Your task to perform on an android device: turn notification dots off Image 0: 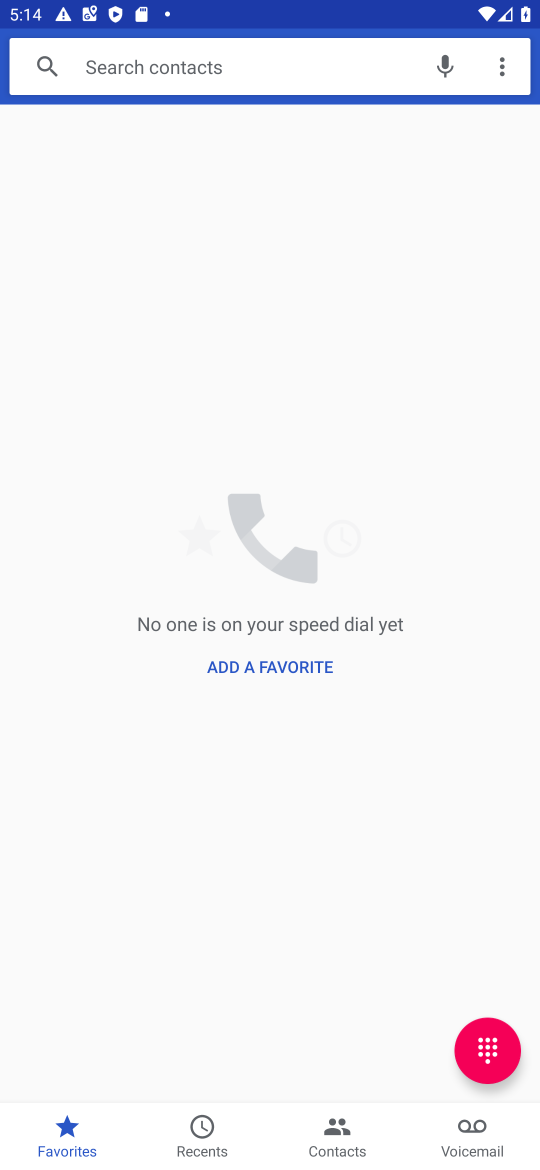
Step 0: press home button
Your task to perform on an android device: turn notification dots off Image 1: 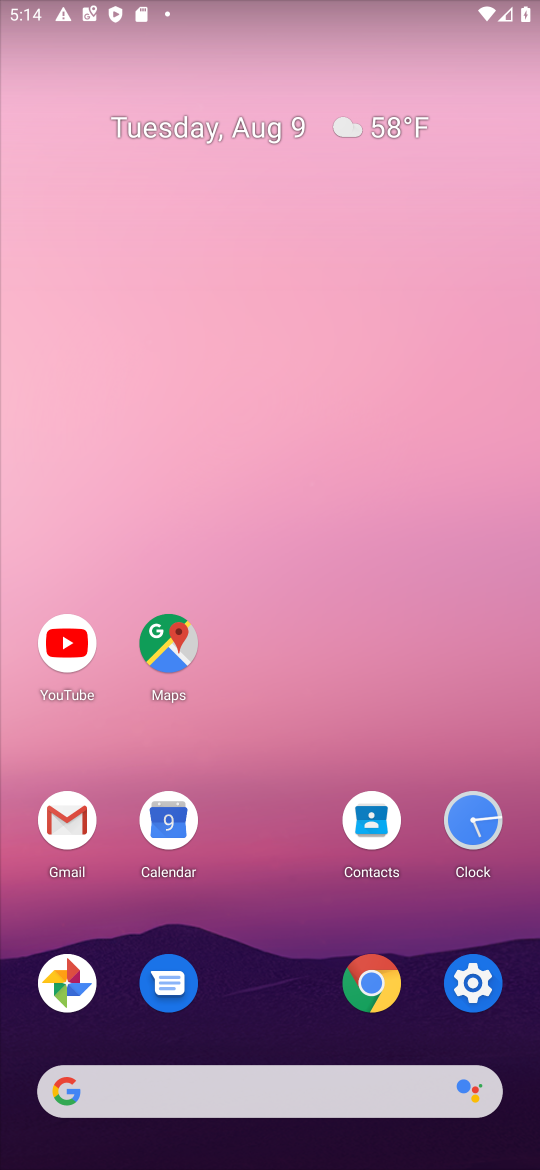
Step 1: click (470, 978)
Your task to perform on an android device: turn notification dots off Image 2: 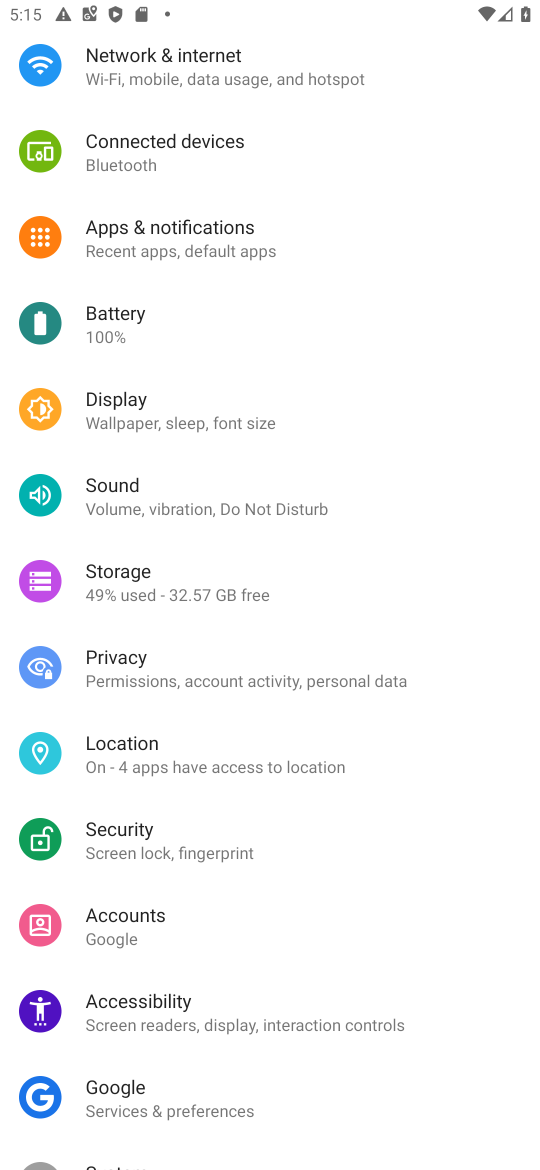
Step 2: click (161, 224)
Your task to perform on an android device: turn notification dots off Image 3: 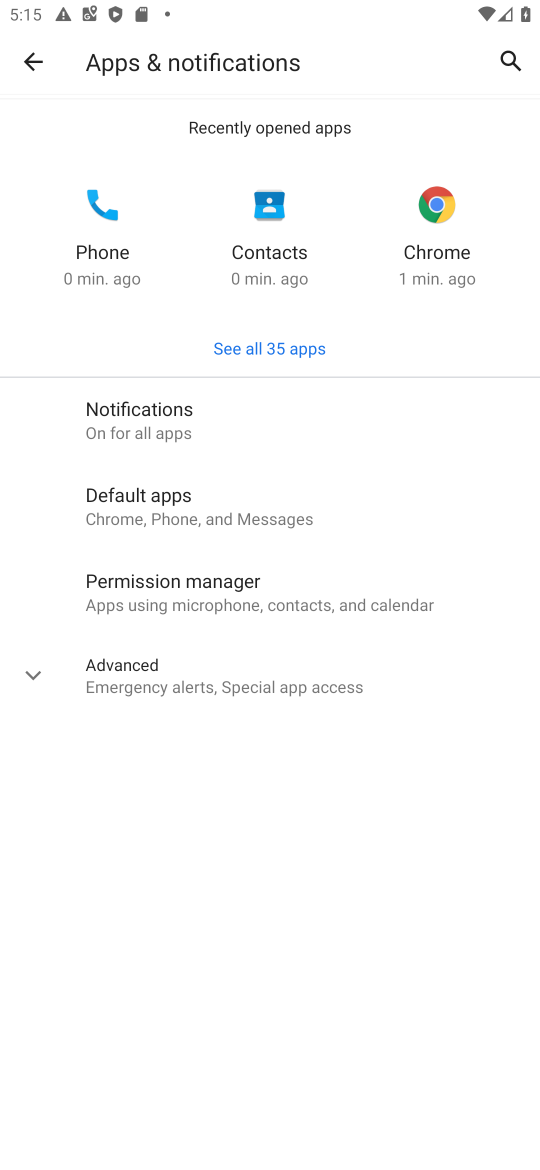
Step 3: click (166, 402)
Your task to perform on an android device: turn notification dots off Image 4: 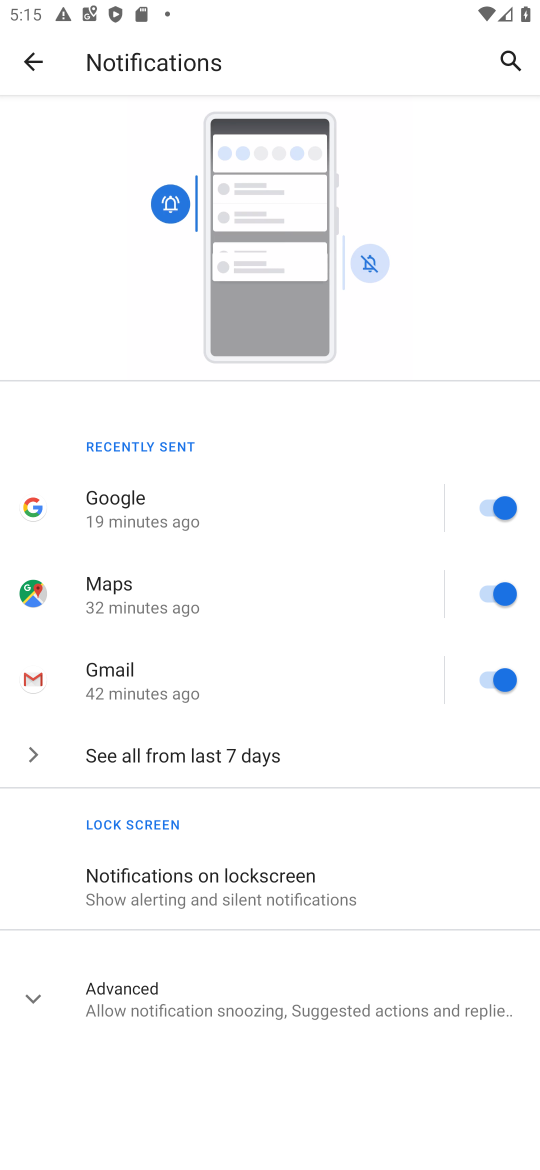
Step 4: click (42, 996)
Your task to perform on an android device: turn notification dots off Image 5: 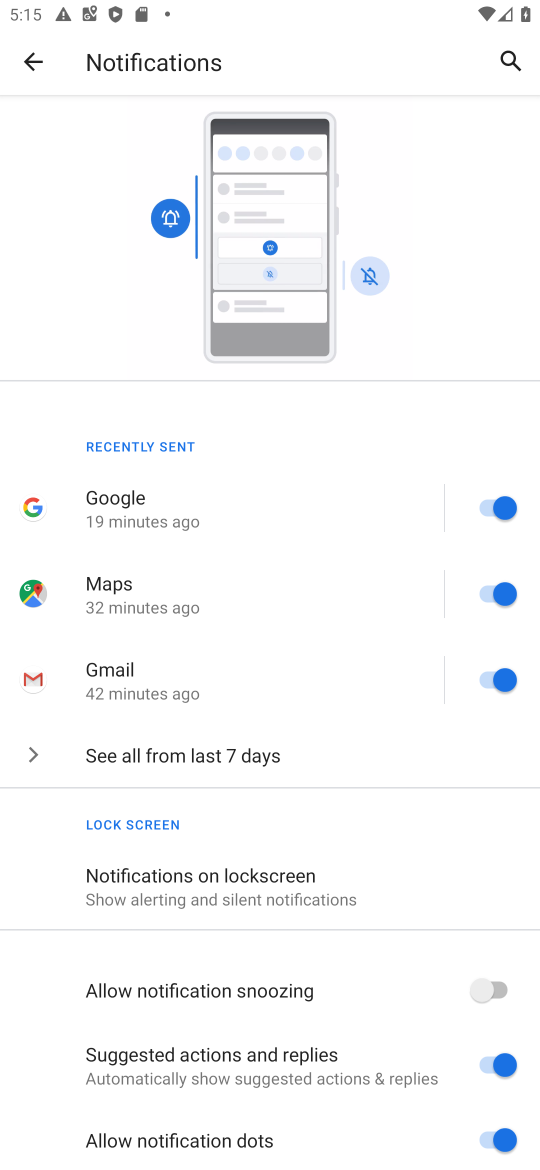
Step 5: drag from (388, 1006) to (316, 493)
Your task to perform on an android device: turn notification dots off Image 6: 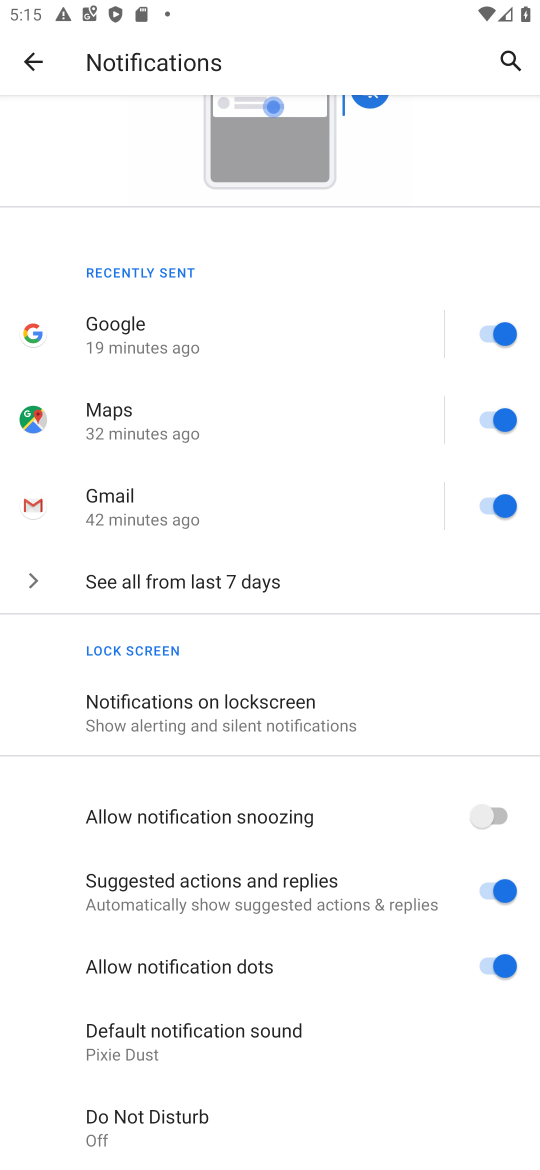
Step 6: click (496, 973)
Your task to perform on an android device: turn notification dots off Image 7: 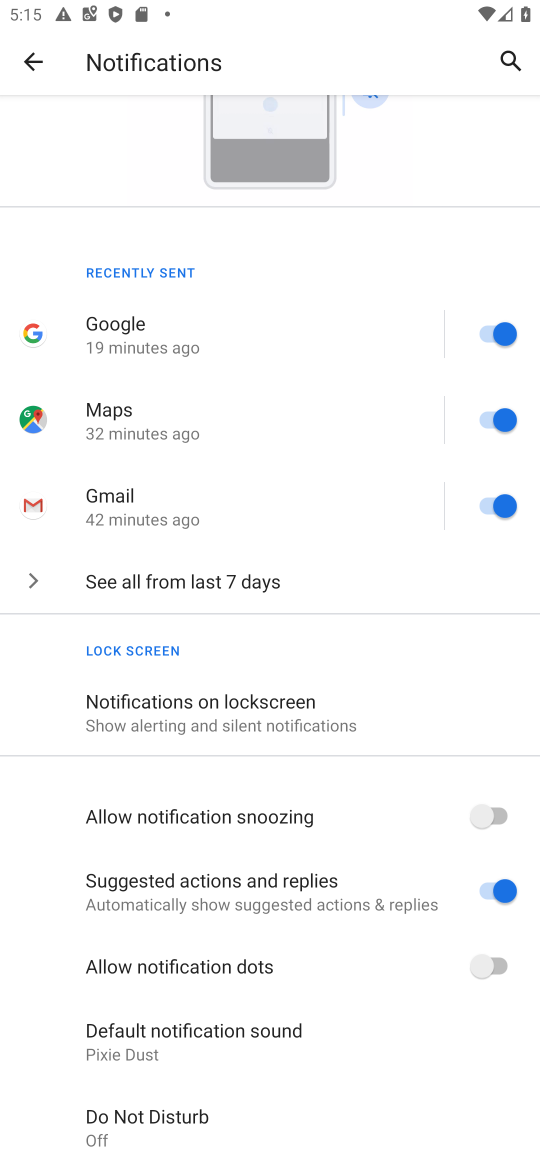
Step 7: task complete